Your task to perform on an android device: Open Google Chrome Image 0: 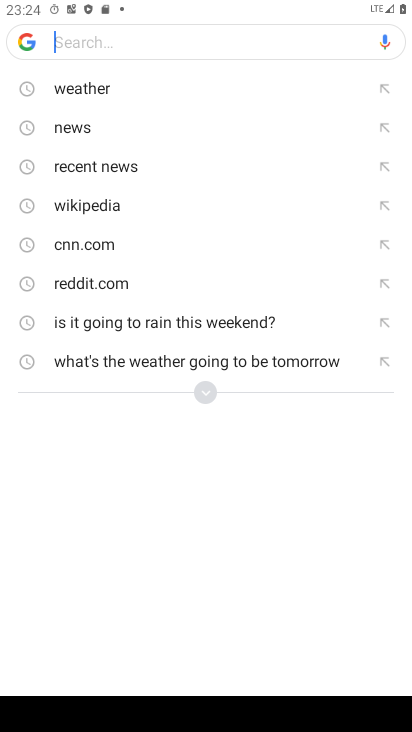
Step 0: press home button
Your task to perform on an android device: Open Google Chrome Image 1: 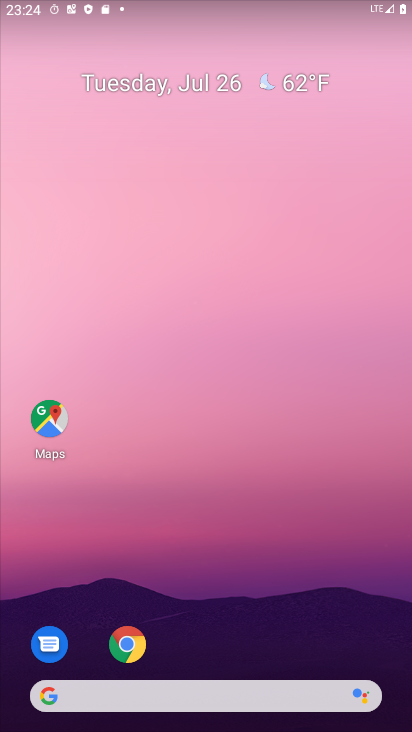
Step 1: click (134, 646)
Your task to perform on an android device: Open Google Chrome Image 2: 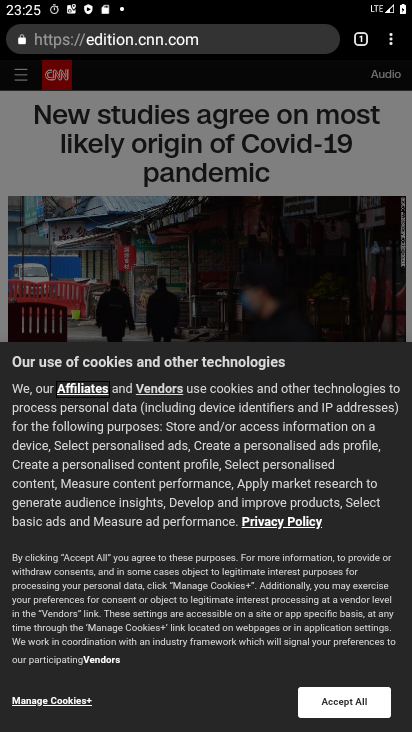
Step 2: task complete